Your task to perform on an android device: Go to wifi settings Image 0: 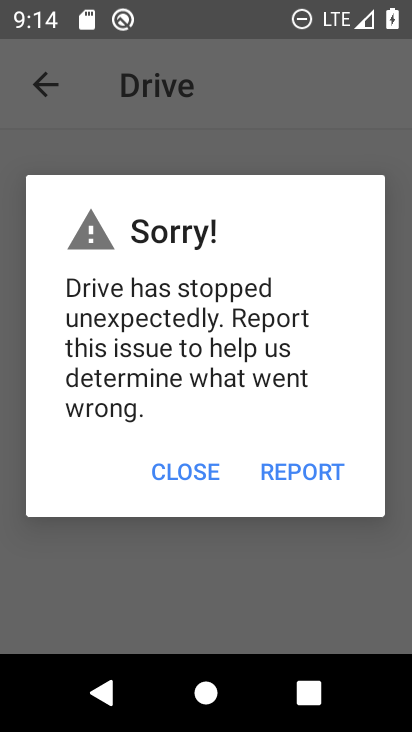
Step 0: drag from (244, 10) to (225, 725)
Your task to perform on an android device: Go to wifi settings Image 1: 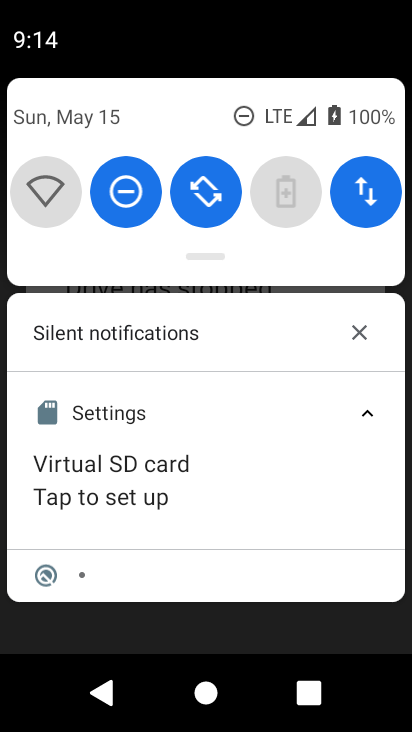
Step 1: click (64, 190)
Your task to perform on an android device: Go to wifi settings Image 2: 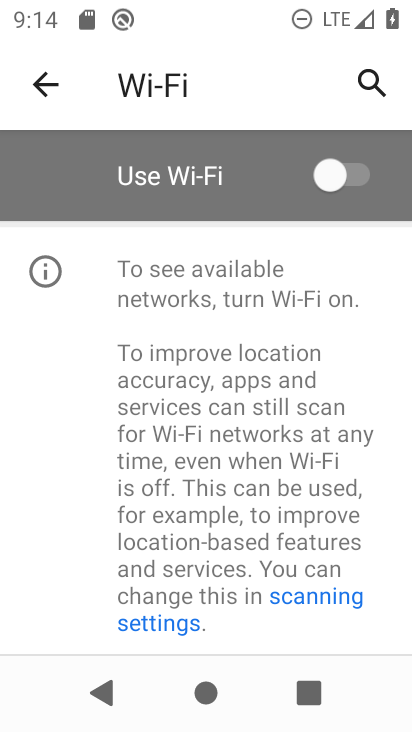
Step 2: task complete